Your task to perform on an android device: turn off improve location accuracy Image 0: 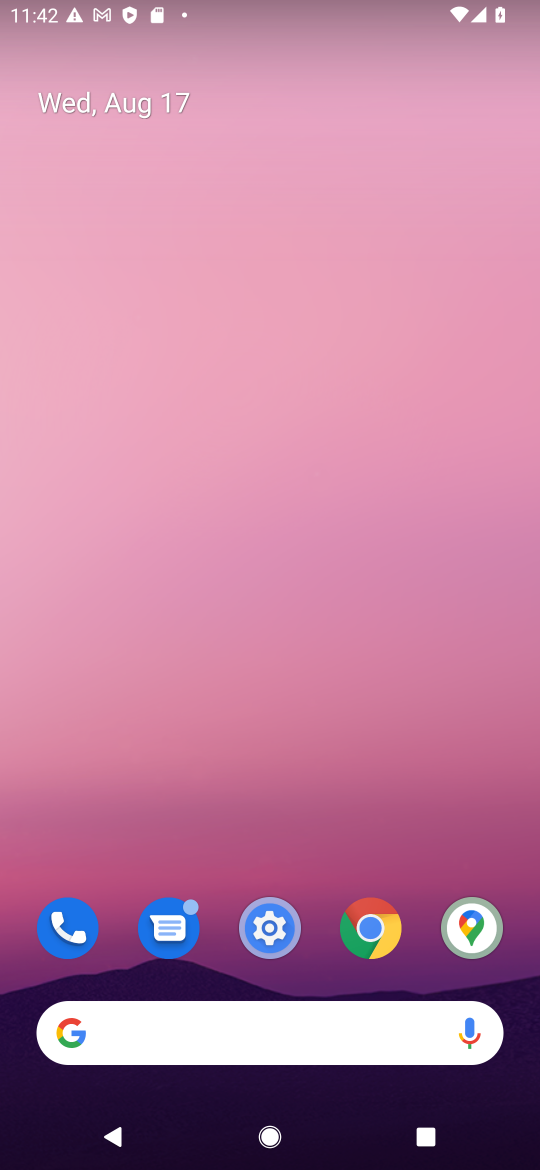
Step 0: click (283, 923)
Your task to perform on an android device: turn off improve location accuracy Image 1: 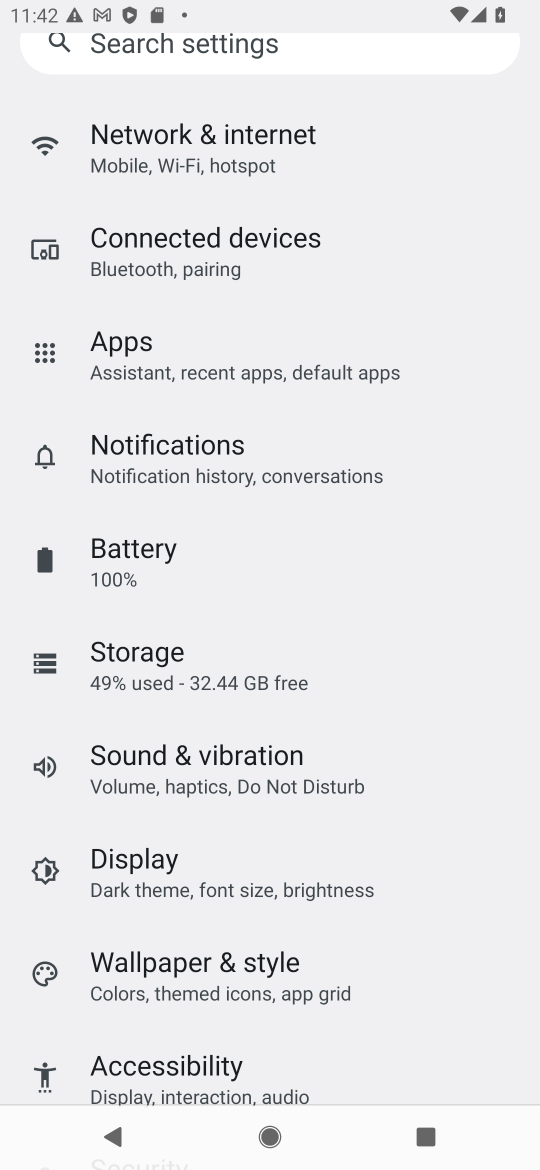
Step 1: click (285, 371)
Your task to perform on an android device: turn off improve location accuracy Image 2: 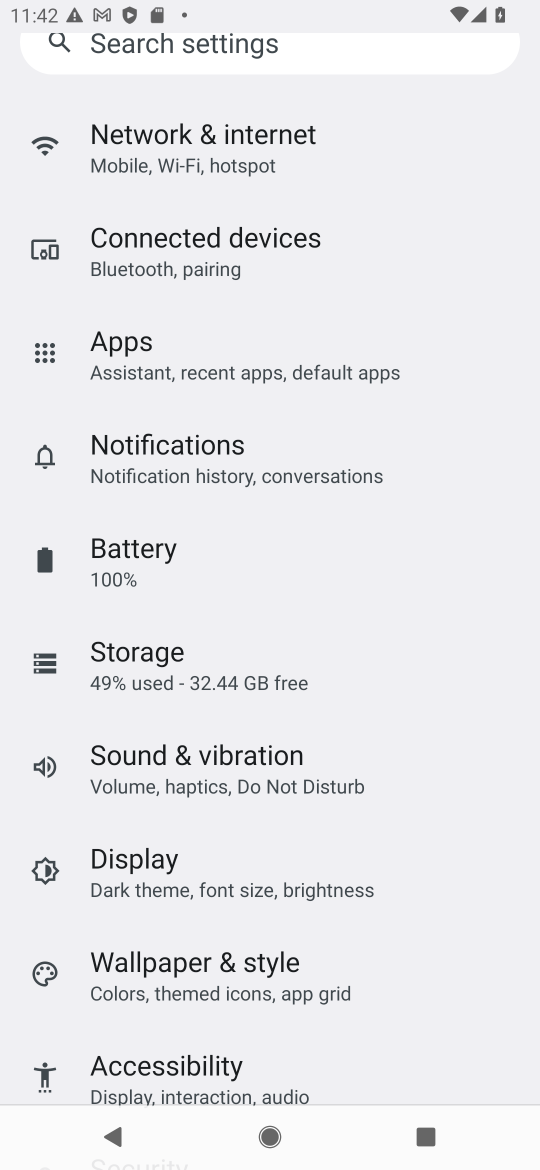
Step 2: drag from (196, 901) to (249, 320)
Your task to perform on an android device: turn off improve location accuracy Image 3: 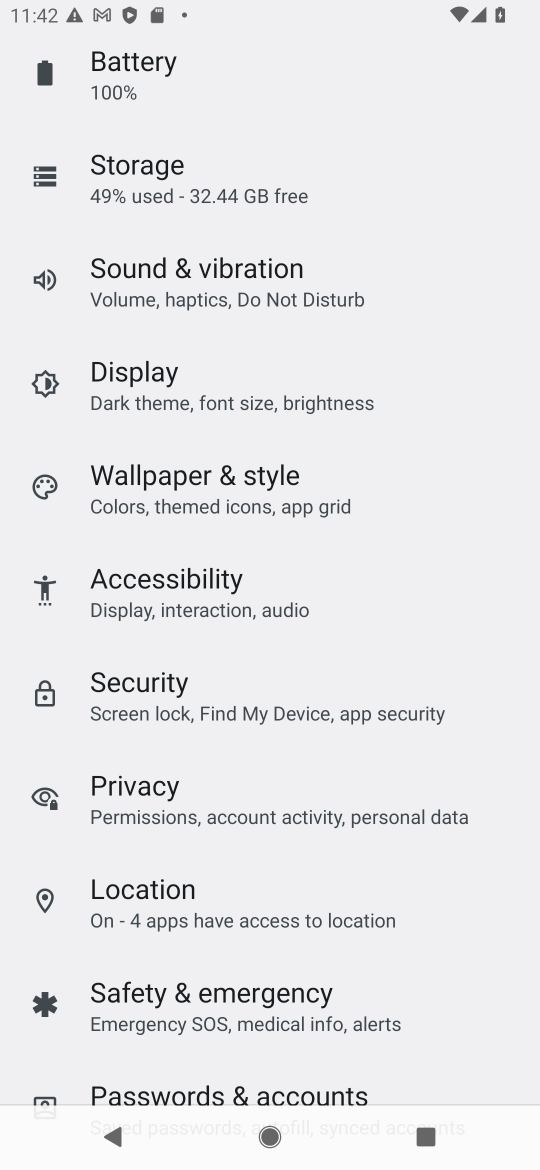
Step 3: drag from (148, 953) to (192, 537)
Your task to perform on an android device: turn off improve location accuracy Image 4: 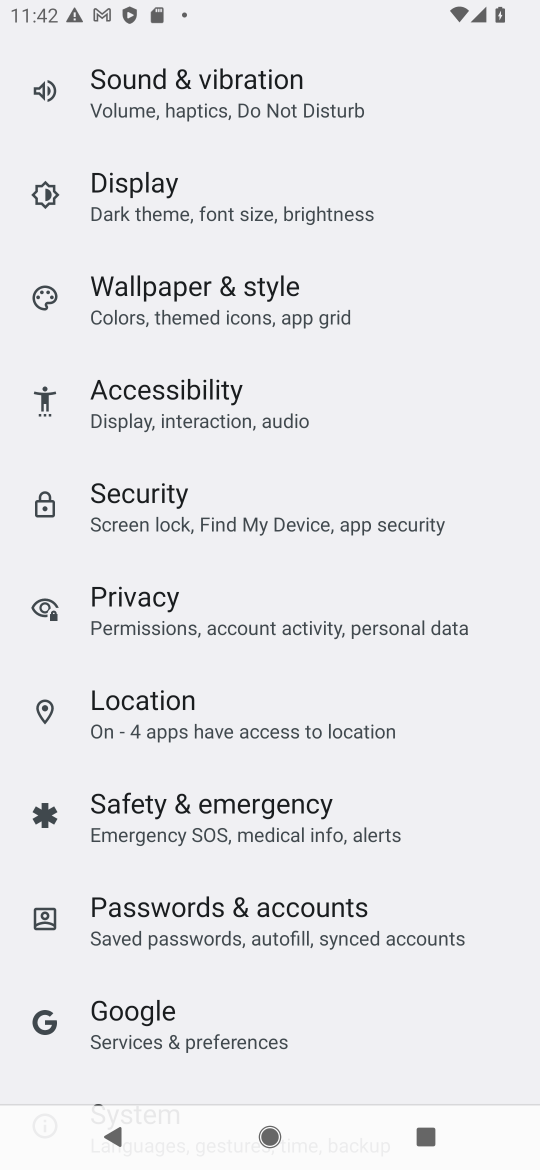
Step 4: click (146, 726)
Your task to perform on an android device: turn off improve location accuracy Image 5: 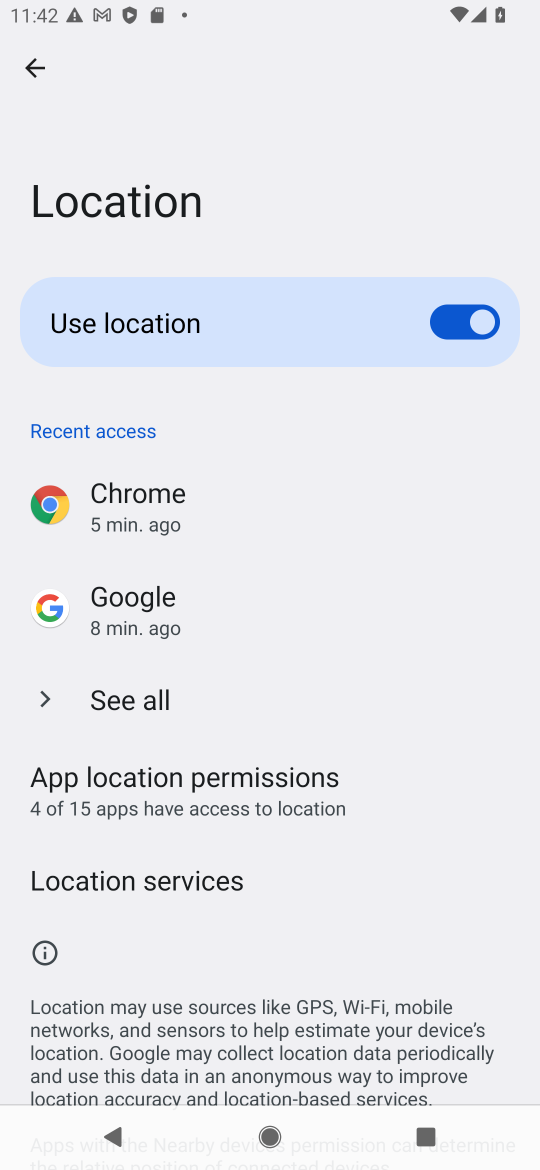
Step 5: click (279, 921)
Your task to perform on an android device: turn off improve location accuracy Image 6: 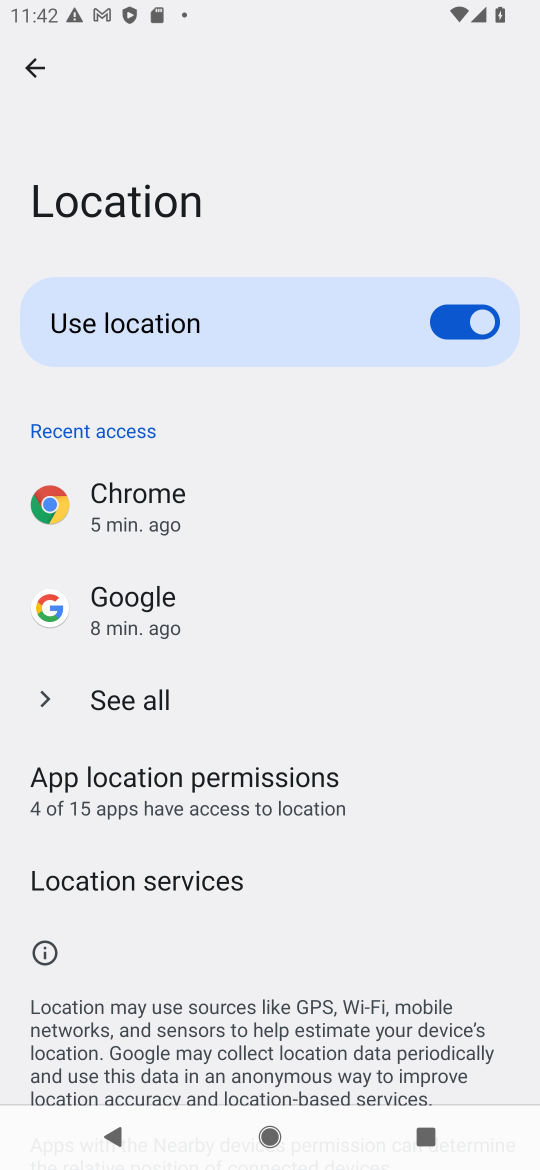
Step 6: click (254, 880)
Your task to perform on an android device: turn off improve location accuracy Image 7: 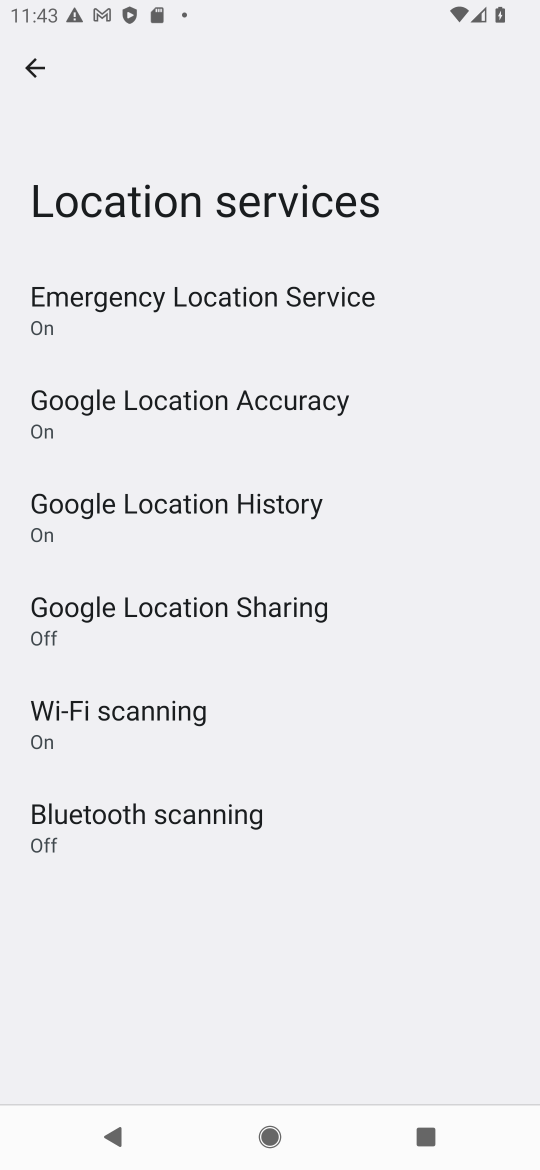
Step 7: click (323, 402)
Your task to perform on an android device: turn off improve location accuracy Image 8: 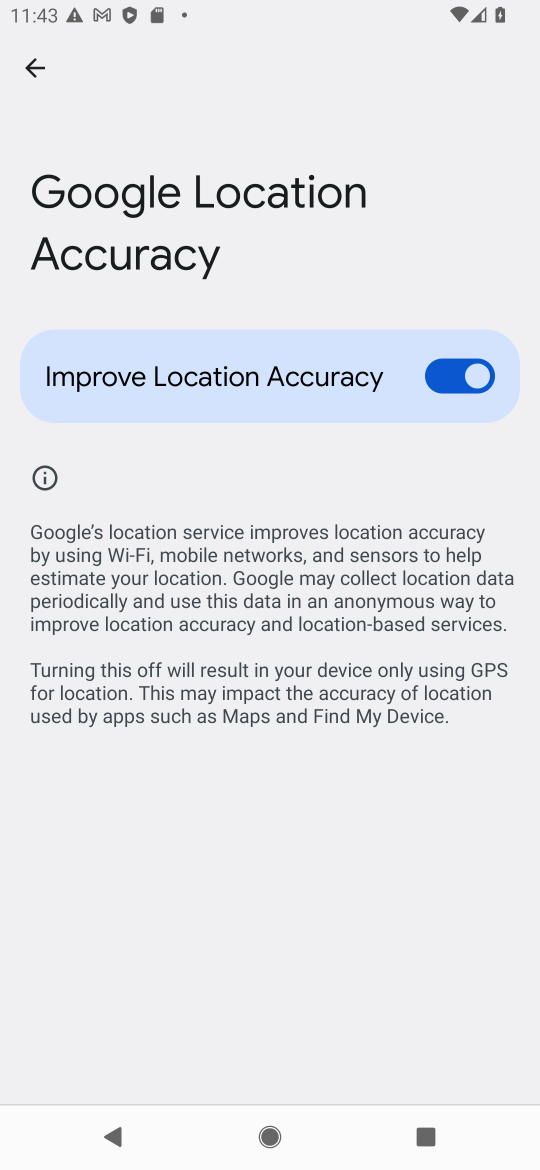
Step 8: click (462, 374)
Your task to perform on an android device: turn off improve location accuracy Image 9: 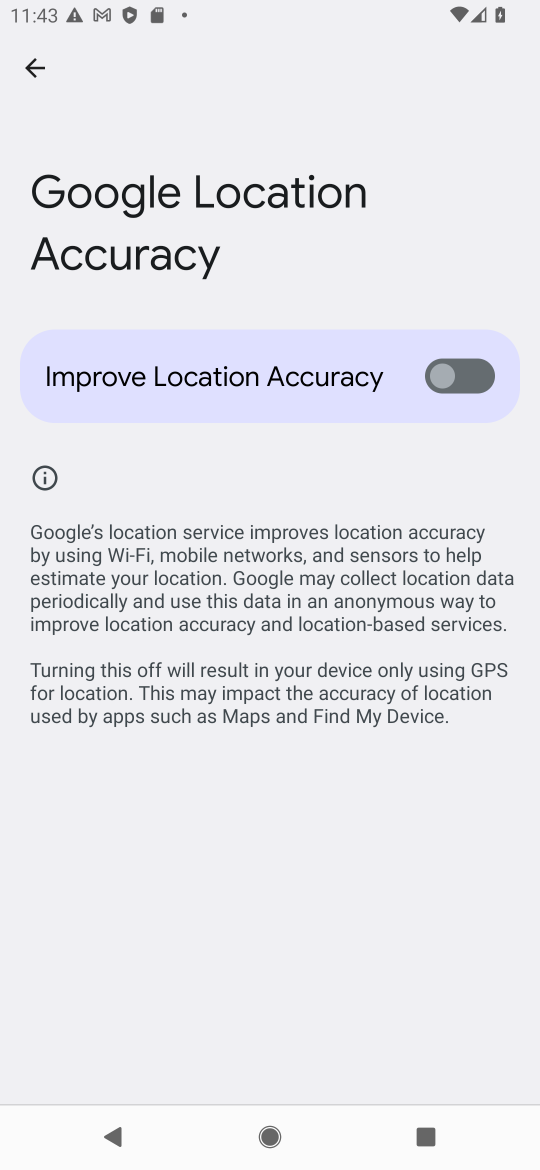
Step 9: task complete